Your task to perform on an android device: turn on airplane mode Image 0: 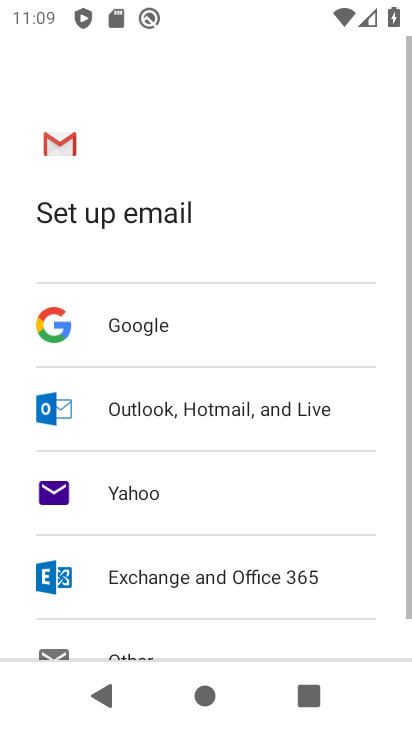
Step 0: press home button
Your task to perform on an android device: turn on airplane mode Image 1: 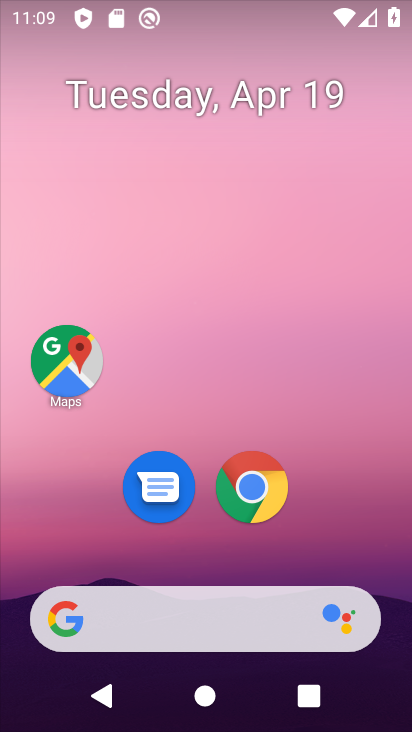
Step 1: drag from (259, 42) to (295, 423)
Your task to perform on an android device: turn on airplane mode Image 2: 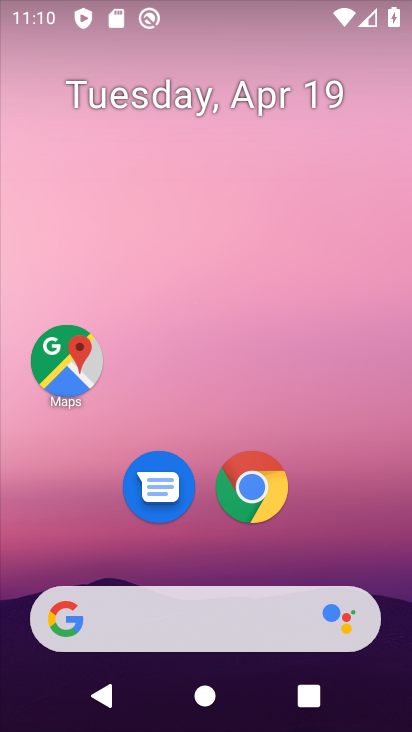
Step 2: drag from (228, 5) to (272, 530)
Your task to perform on an android device: turn on airplane mode Image 3: 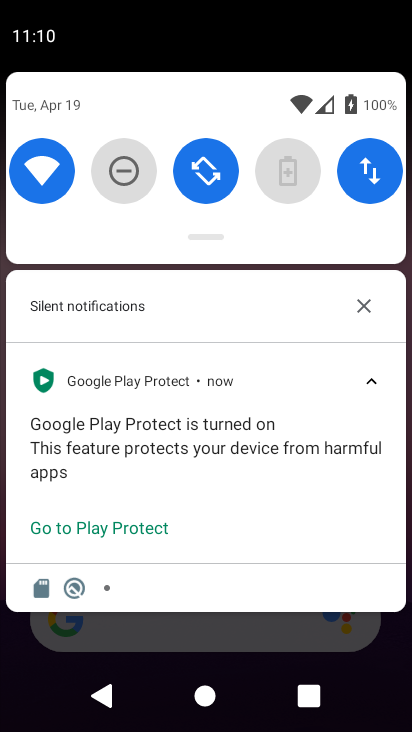
Step 3: drag from (255, 217) to (306, 554)
Your task to perform on an android device: turn on airplane mode Image 4: 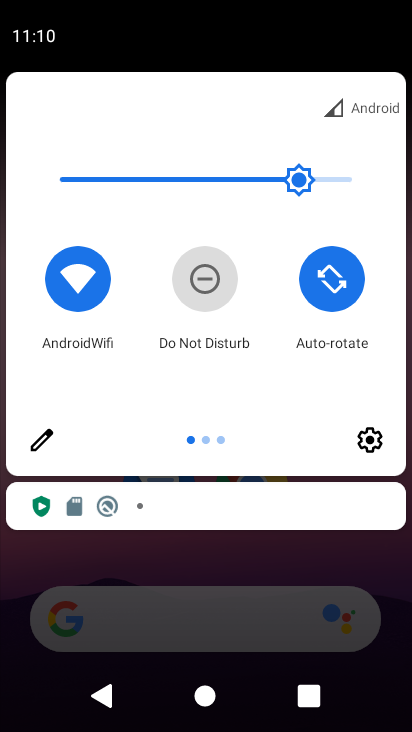
Step 4: drag from (329, 376) to (11, 356)
Your task to perform on an android device: turn on airplane mode Image 5: 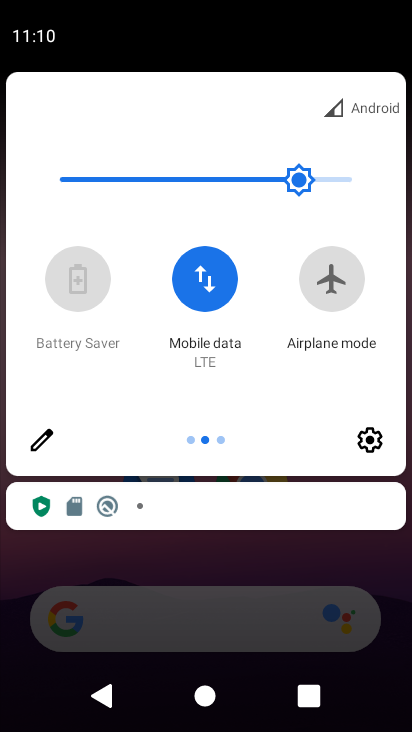
Step 5: click (311, 274)
Your task to perform on an android device: turn on airplane mode Image 6: 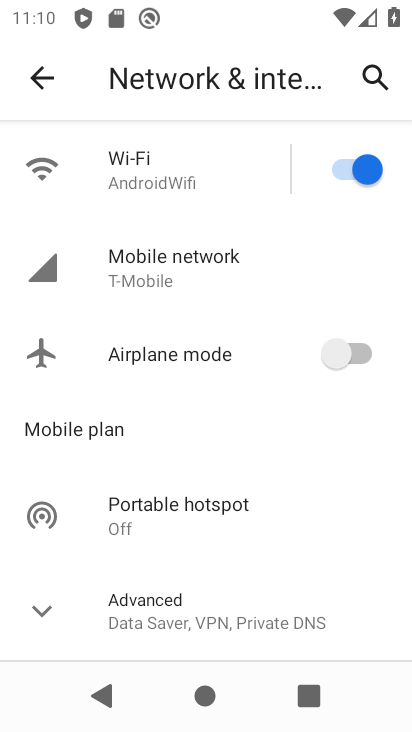
Step 6: drag from (216, 22) to (203, 434)
Your task to perform on an android device: turn on airplane mode Image 7: 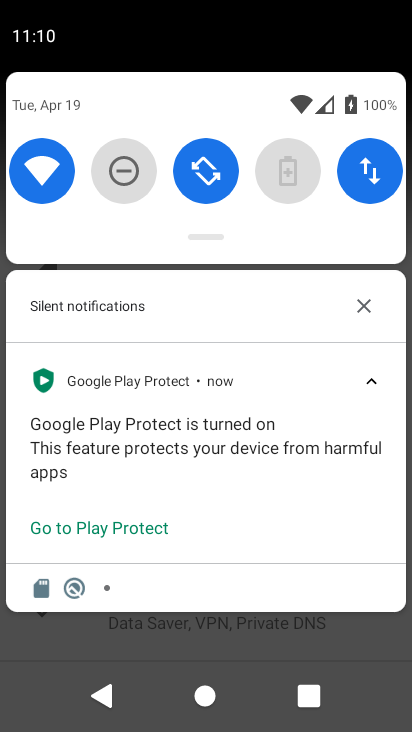
Step 7: drag from (169, 641) to (235, 80)
Your task to perform on an android device: turn on airplane mode Image 8: 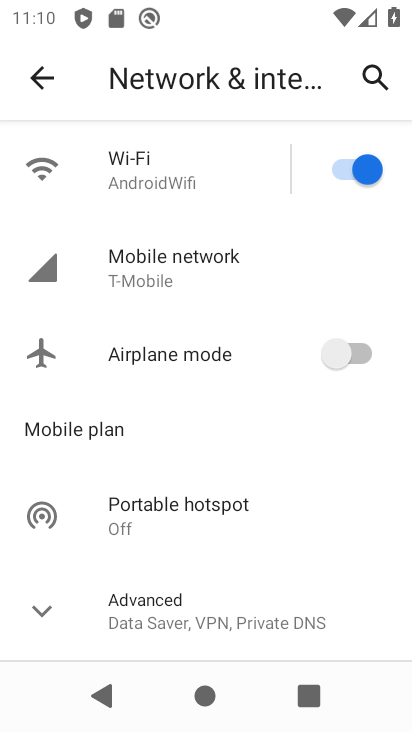
Step 8: click (306, 362)
Your task to perform on an android device: turn on airplane mode Image 9: 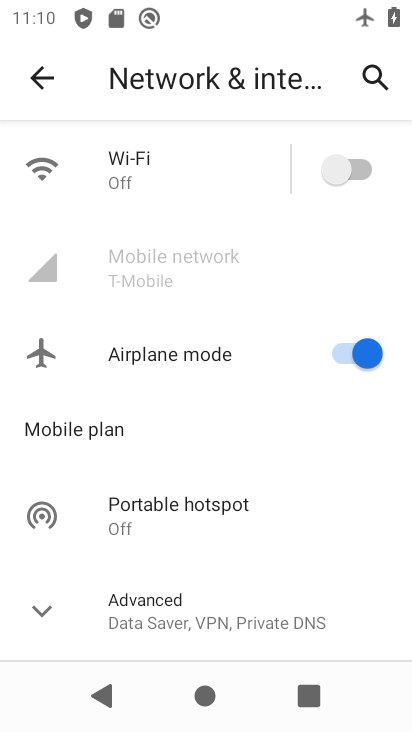
Step 9: task complete